Your task to perform on an android device: set the stopwatch Image 0: 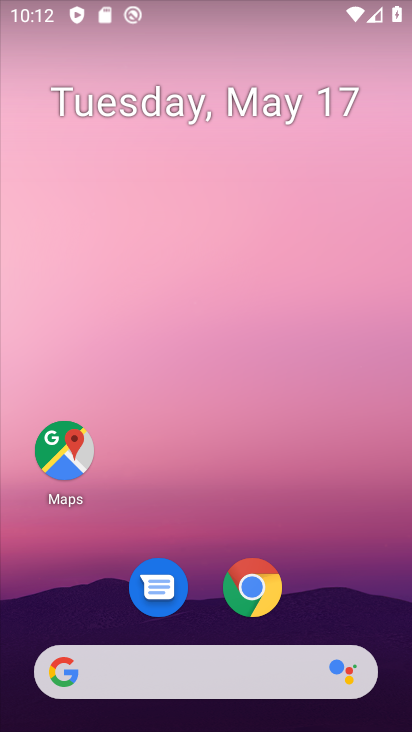
Step 0: drag from (347, 578) to (358, 107)
Your task to perform on an android device: set the stopwatch Image 1: 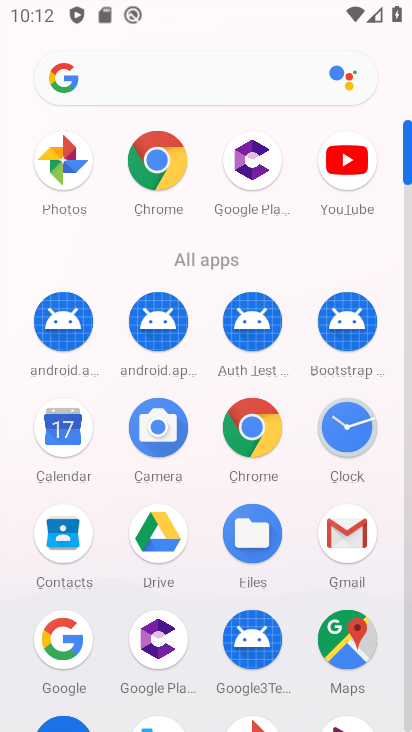
Step 1: click (354, 434)
Your task to perform on an android device: set the stopwatch Image 2: 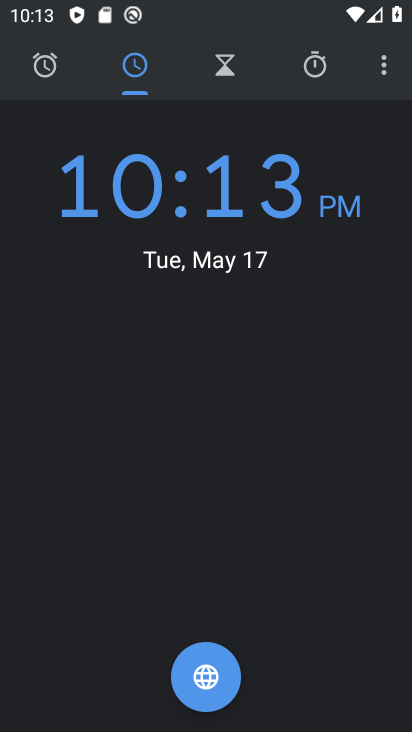
Step 2: click (311, 82)
Your task to perform on an android device: set the stopwatch Image 3: 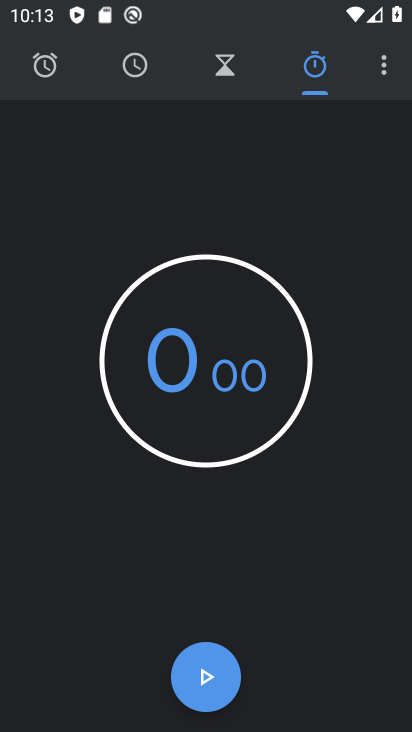
Step 3: click (213, 681)
Your task to perform on an android device: set the stopwatch Image 4: 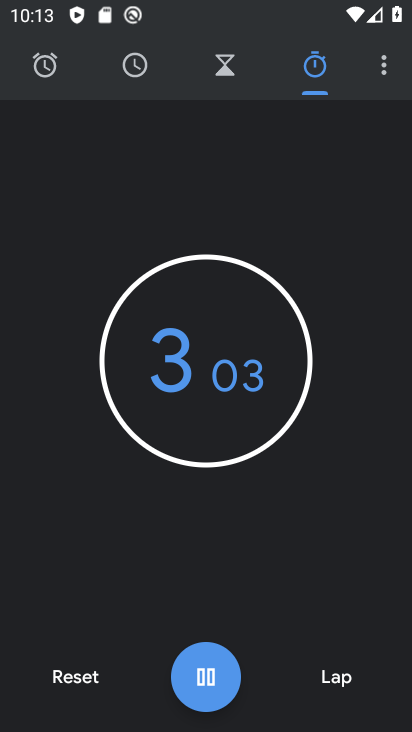
Step 4: click (213, 681)
Your task to perform on an android device: set the stopwatch Image 5: 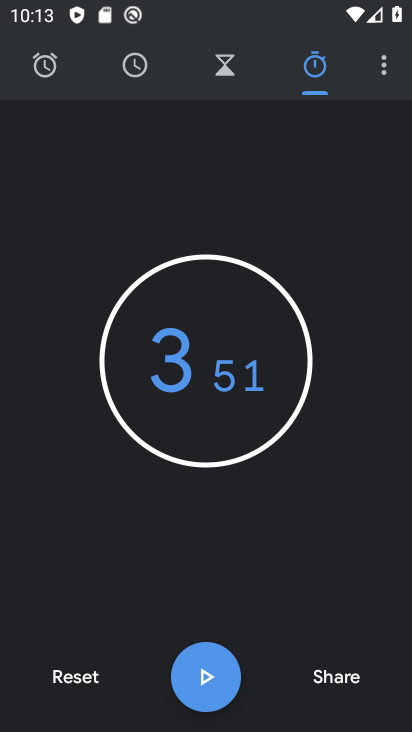
Step 5: task complete